Your task to perform on an android device: Add "amazon basics triple a" to the cart on ebay, then select checkout. Image 0: 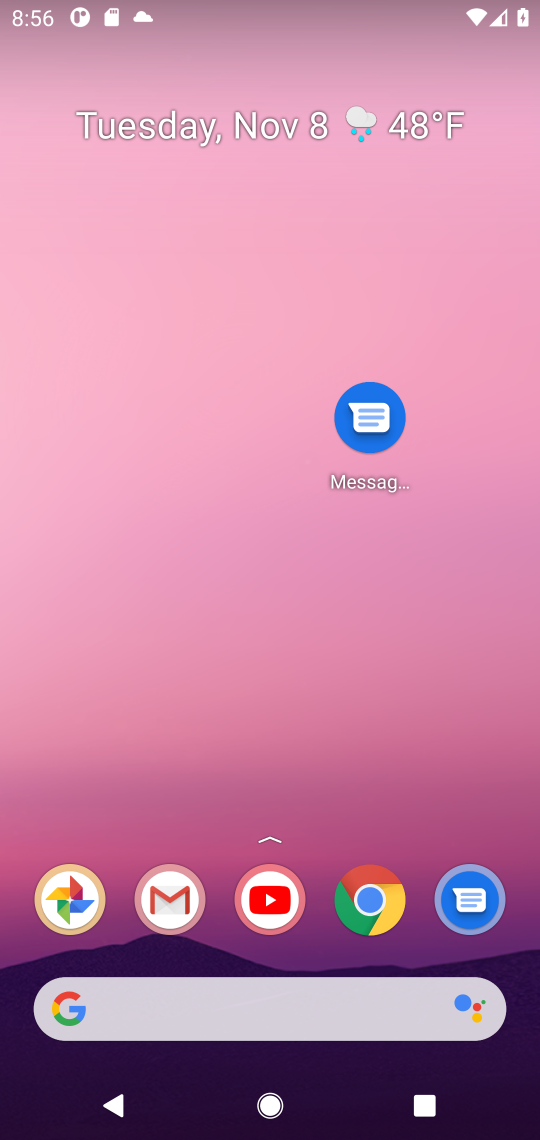
Step 0: drag from (296, 1024) to (373, 363)
Your task to perform on an android device: Add "amazon basics triple a" to the cart on ebay, then select checkout. Image 1: 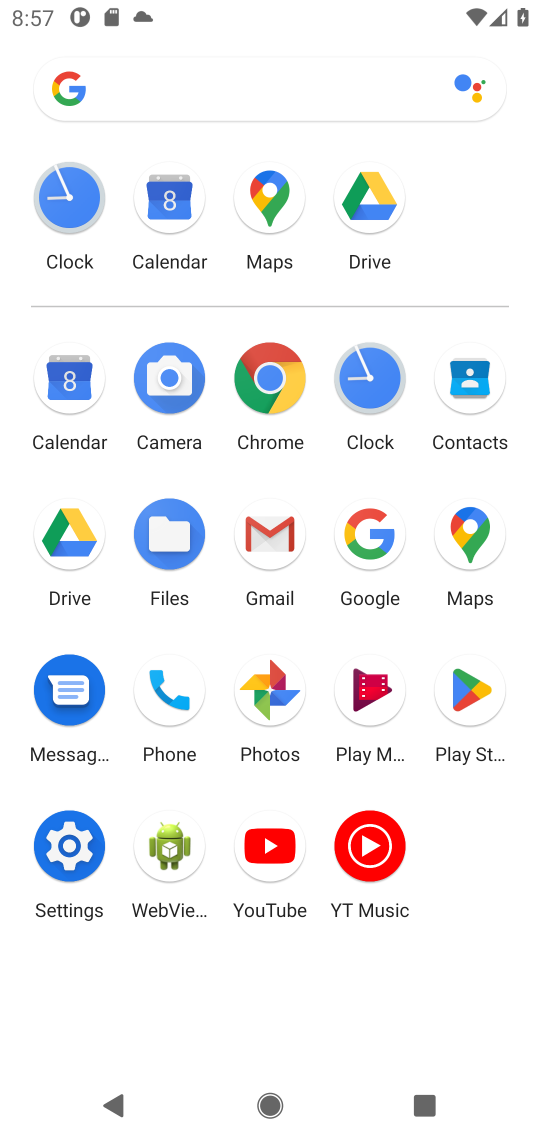
Step 1: click (380, 534)
Your task to perform on an android device: Add "amazon basics triple a" to the cart on ebay, then select checkout. Image 2: 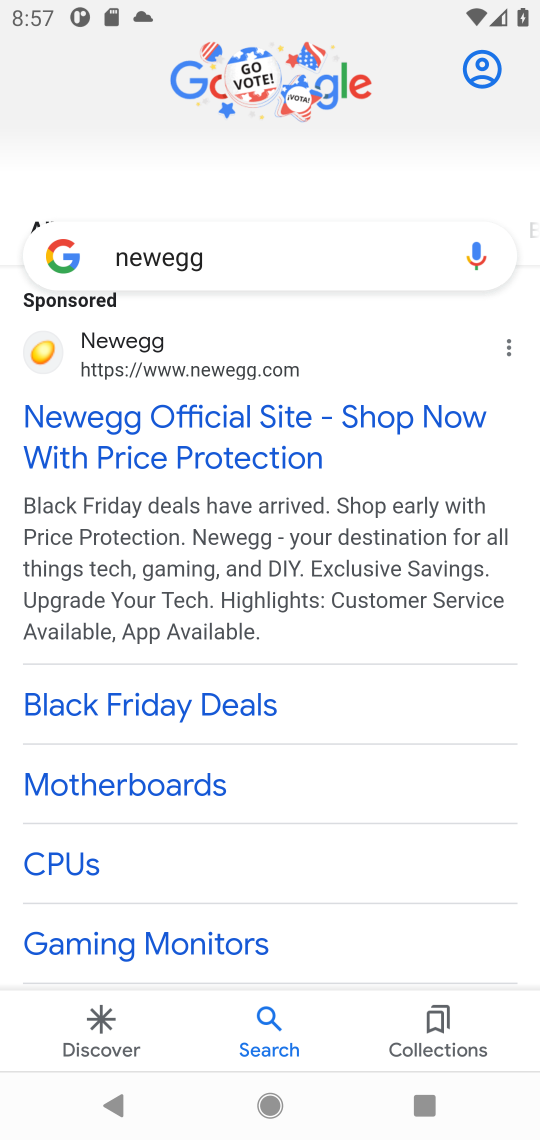
Step 2: click (259, 252)
Your task to perform on an android device: Add "amazon basics triple a" to the cart on ebay, then select checkout. Image 3: 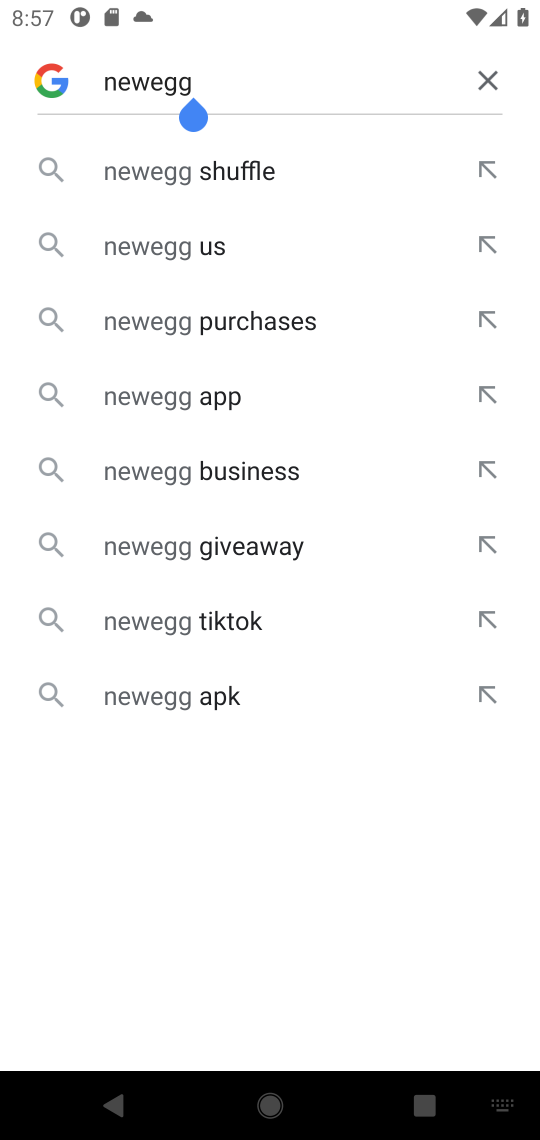
Step 3: click (515, 71)
Your task to perform on an android device: Add "amazon basics triple a" to the cart on ebay, then select checkout. Image 4: 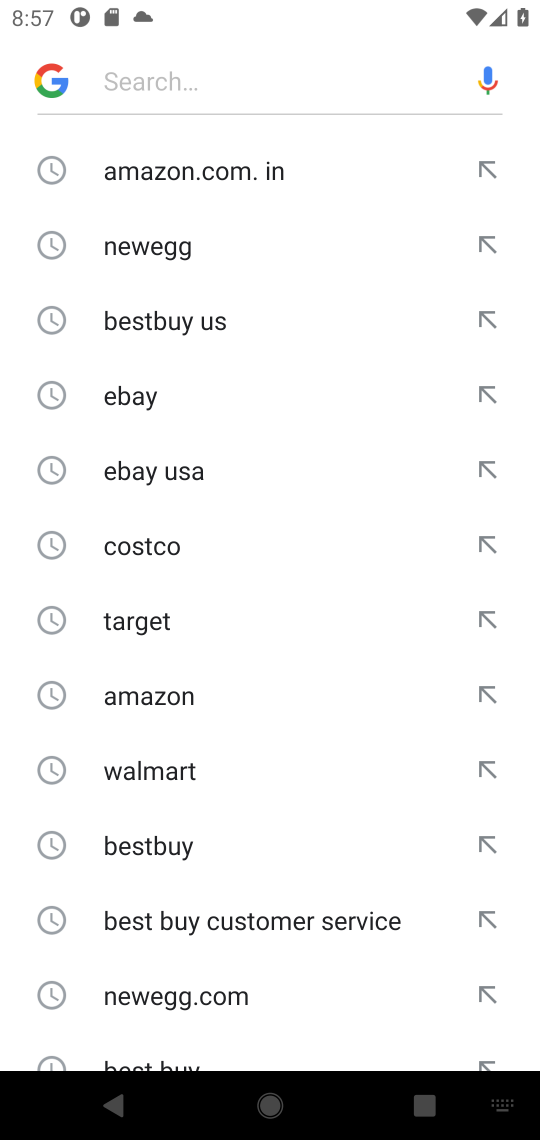
Step 4: click (147, 380)
Your task to perform on an android device: Add "amazon basics triple a" to the cart on ebay, then select checkout. Image 5: 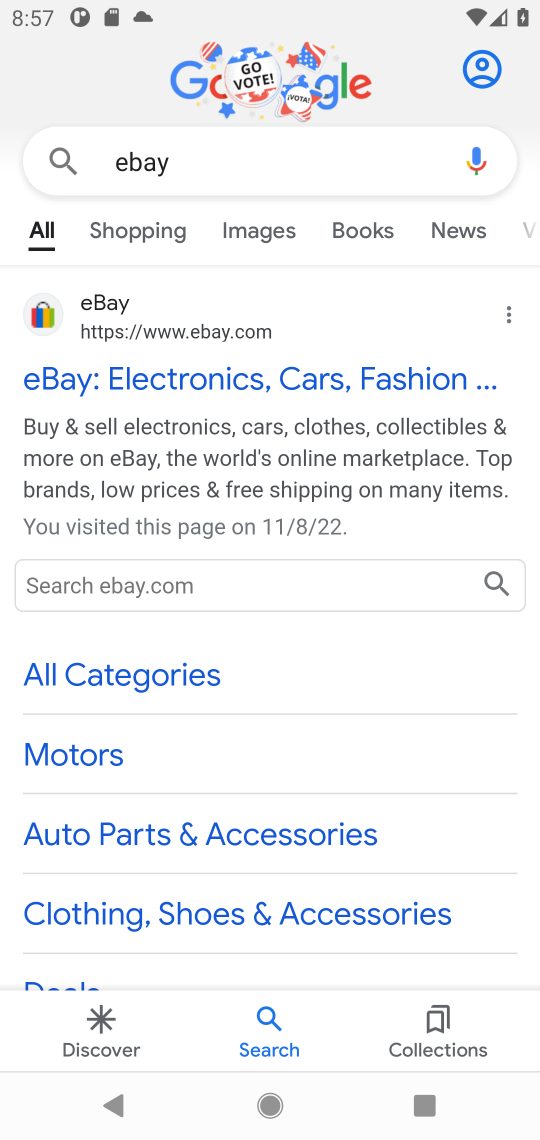
Step 5: click (34, 310)
Your task to perform on an android device: Add "amazon basics triple a" to the cart on ebay, then select checkout. Image 6: 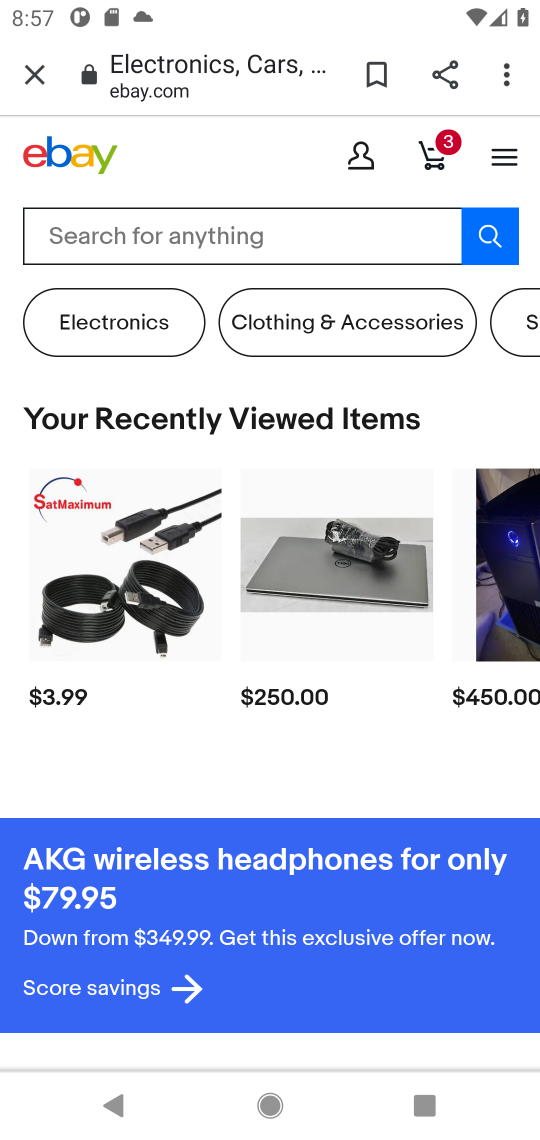
Step 6: click (251, 227)
Your task to perform on an android device: Add "amazon basics triple a" to the cart on ebay, then select checkout. Image 7: 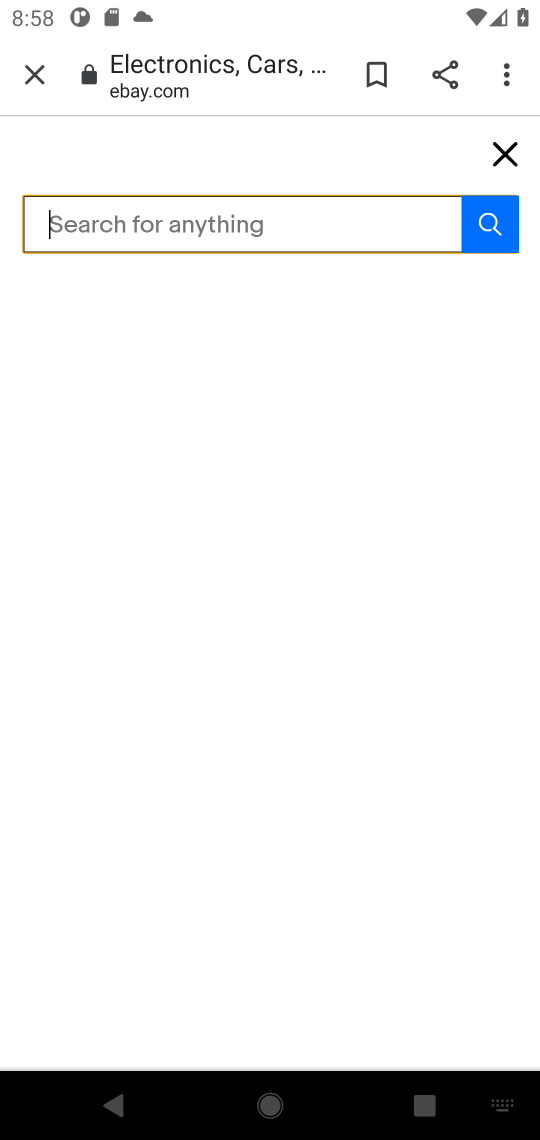
Step 7: type "triple "
Your task to perform on an android device: Add "amazon basics triple a" to the cart on ebay, then select checkout. Image 8: 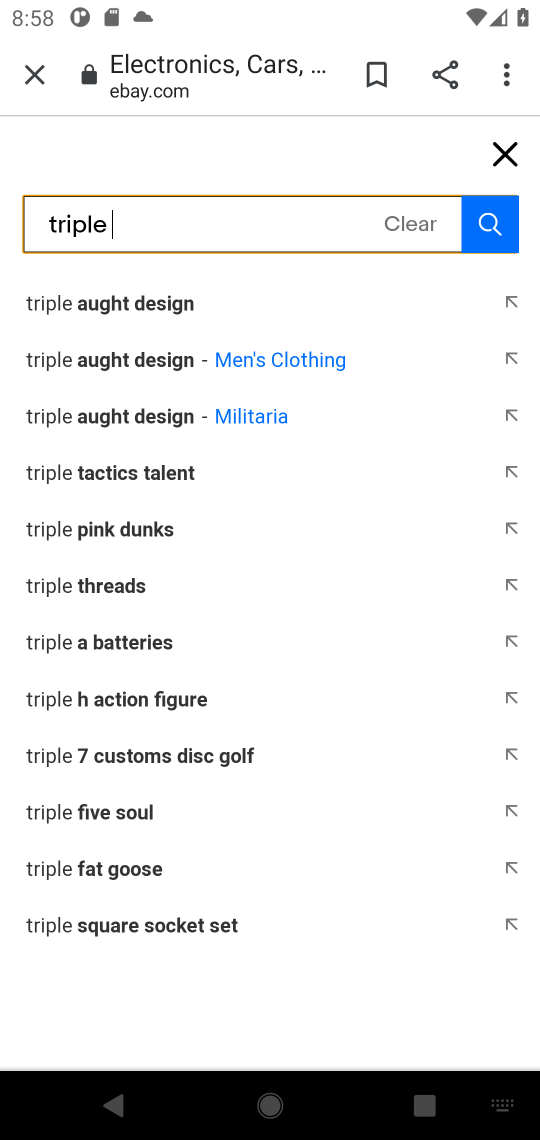
Step 8: click (153, 308)
Your task to perform on an android device: Add "amazon basics triple a" to the cart on ebay, then select checkout. Image 9: 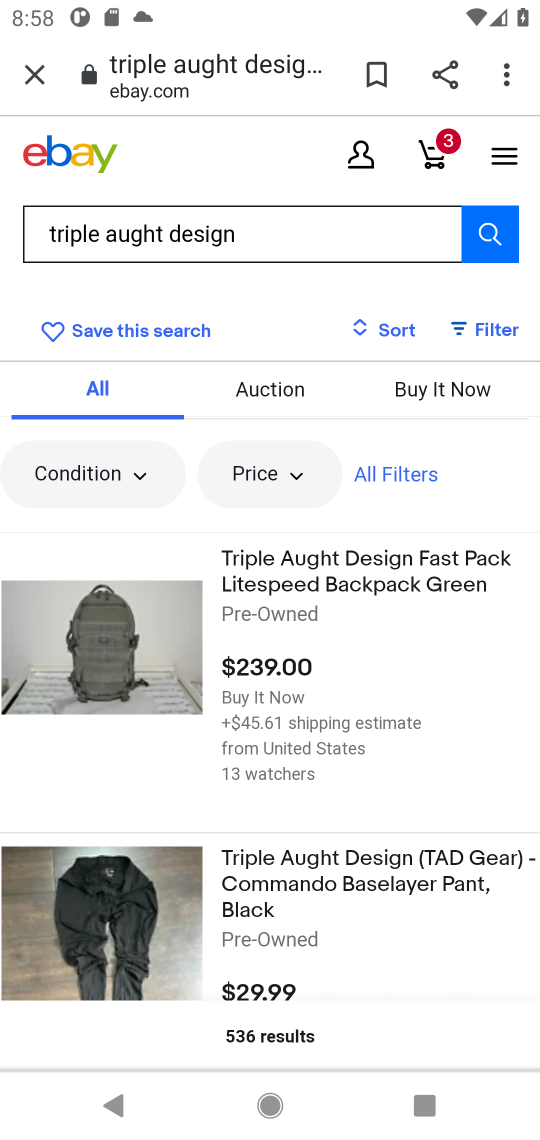
Step 9: drag from (376, 926) to (394, 481)
Your task to perform on an android device: Add "amazon basics triple a" to the cart on ebay, then select checkout. Image 10: 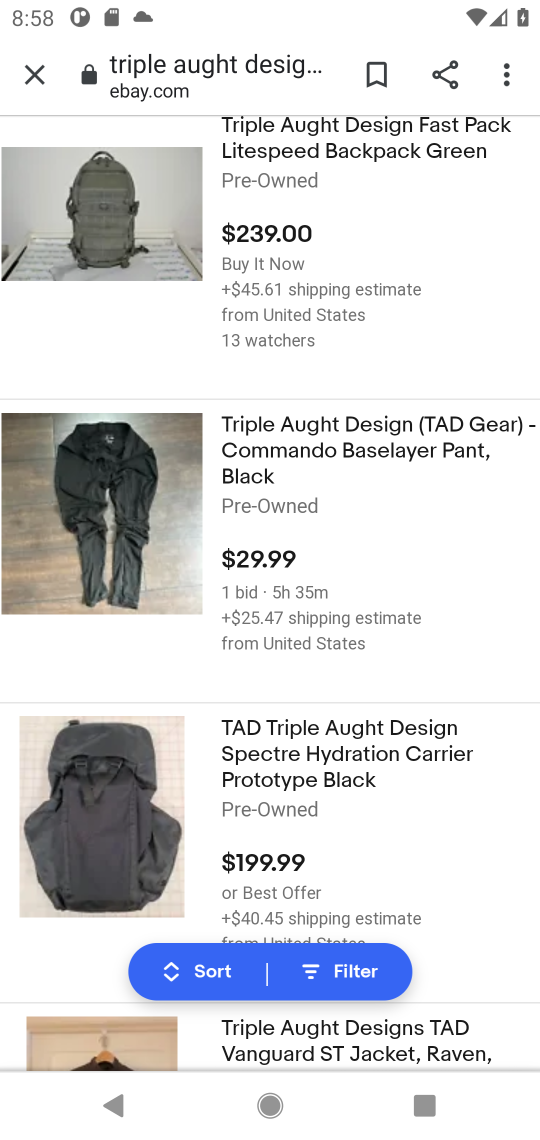
Step 10: press back button
Your task to perform on an android device: Add "amazon basics triple a" to the cart on ebay, then select checkout. Image 11: 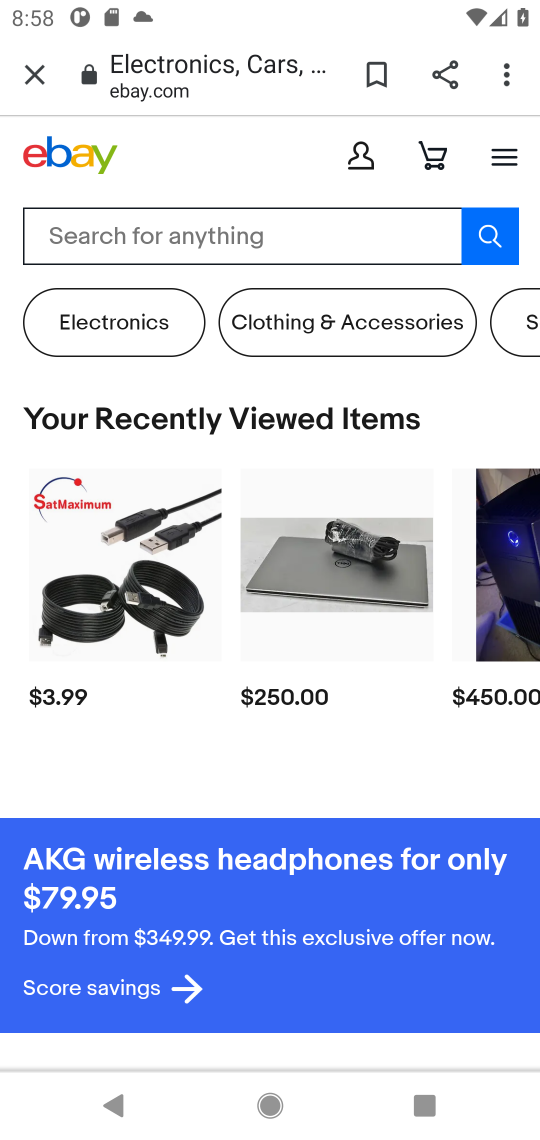
Step 11: click (258, 224)
Your task to perform on an android device: Add "amazon basics triple a" to the cart on ebay, then select checkout. Image 12: 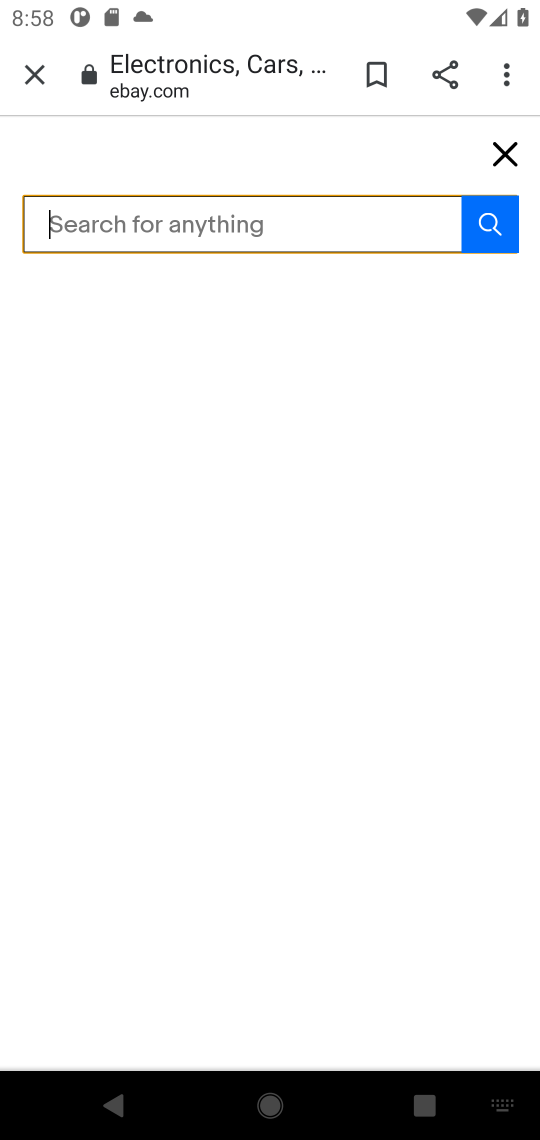
Step 12: type "triple "
Your task to perform on an android device: Add "amazon basics triple a" to the cart on ebay, then select checkout. Image 13: 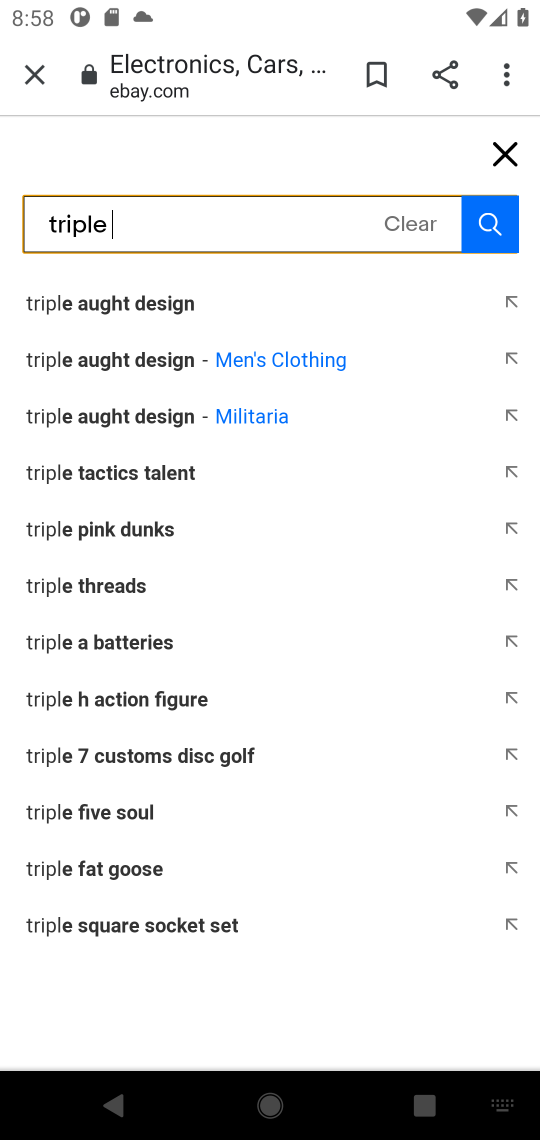
Step 13: click (142, 646)
Your task to perform on an android device: Add "amazon basics triple a" to the cart on ebay, then select checkout. Image 14: 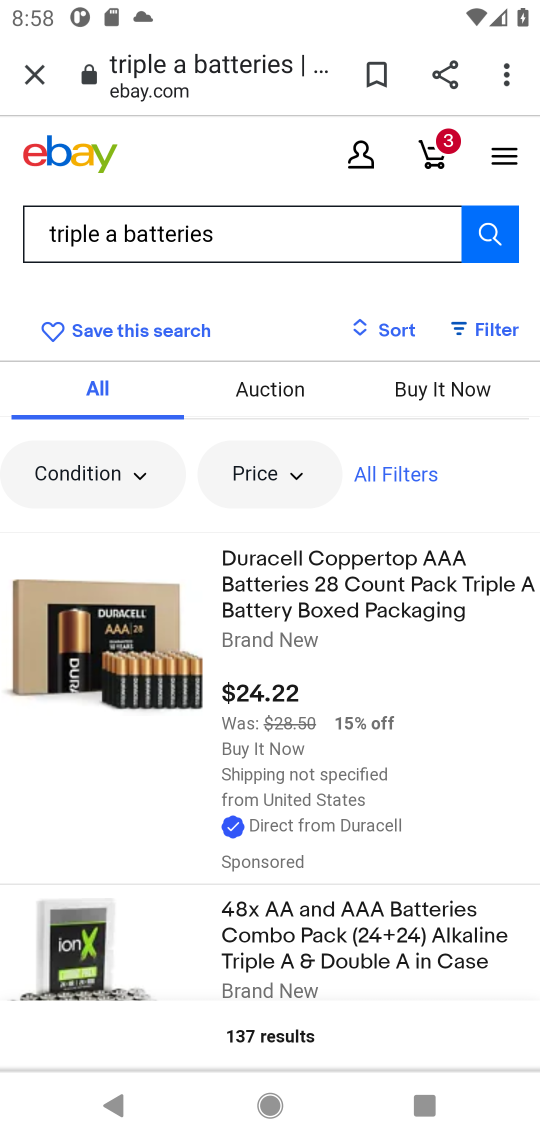
Step 14: click (273, 555)
Your task to perform on an android device: Add "amazon basics triple a" to the cart on ebay, then select checkout. Image 15: 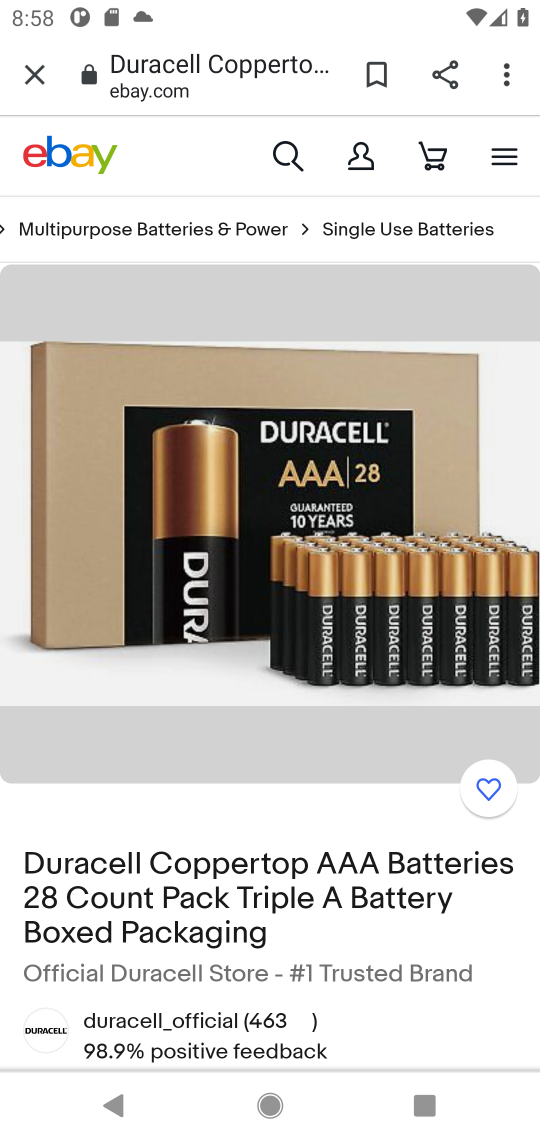
Step 15: drag from (240, 947) to (281, 395)
Your task to perform on an android device: Add "amazon basics triple a" to the cart on ebay, then select checkout. Image 16: 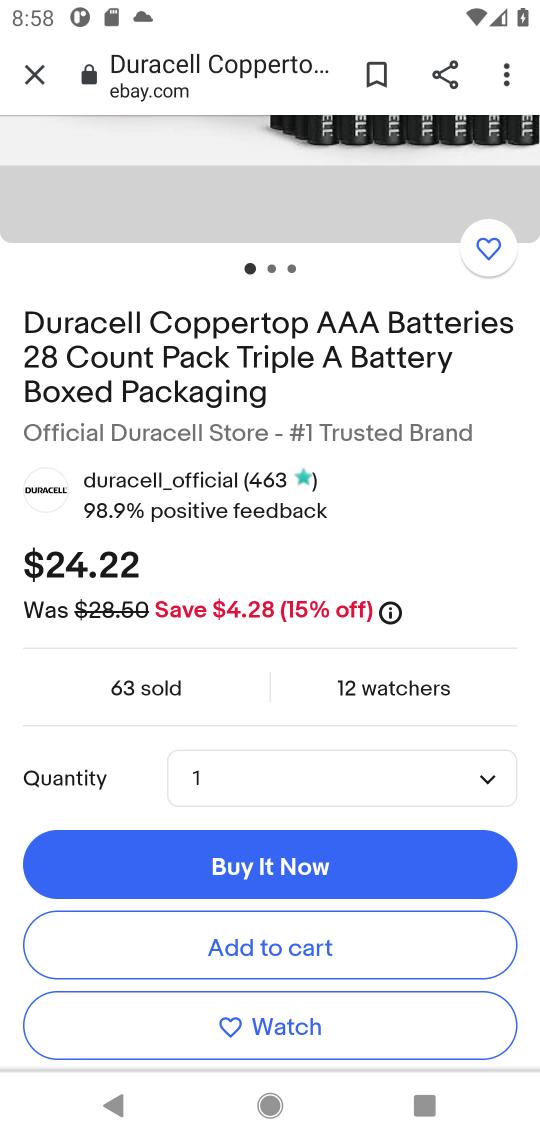
Step 16: drag from (196, 971) to (292, 370)
Your task to perform on an android device: Add "amazon basics triple a" to the cart on ebay, then select checkout. Image 17: 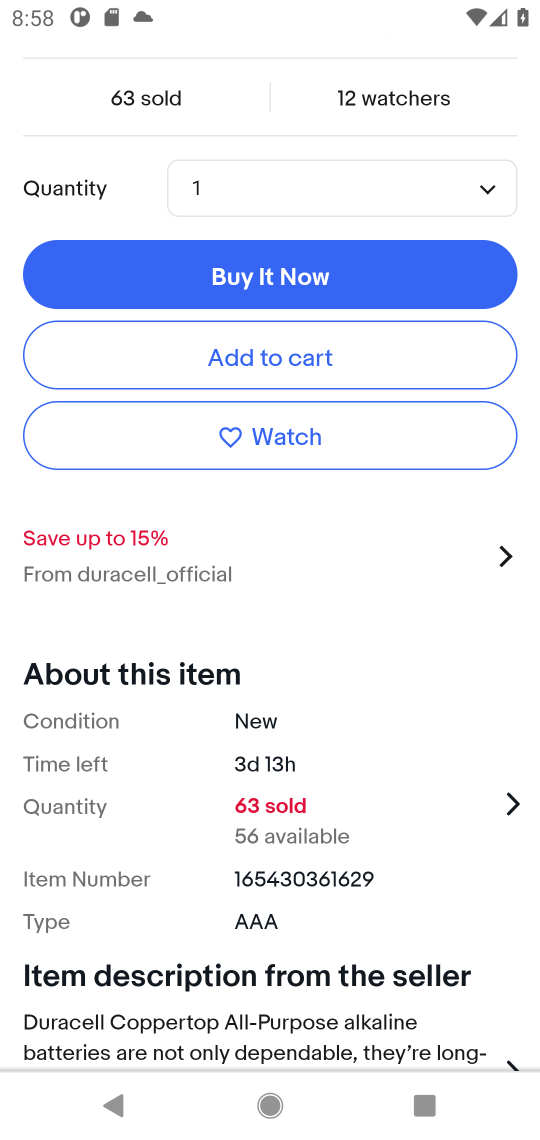
Step 17: click (279, 344)
Your task to perform on an android device: Add "amazon basics triple a" to the cart on ebay, then select checkout. Image 18: 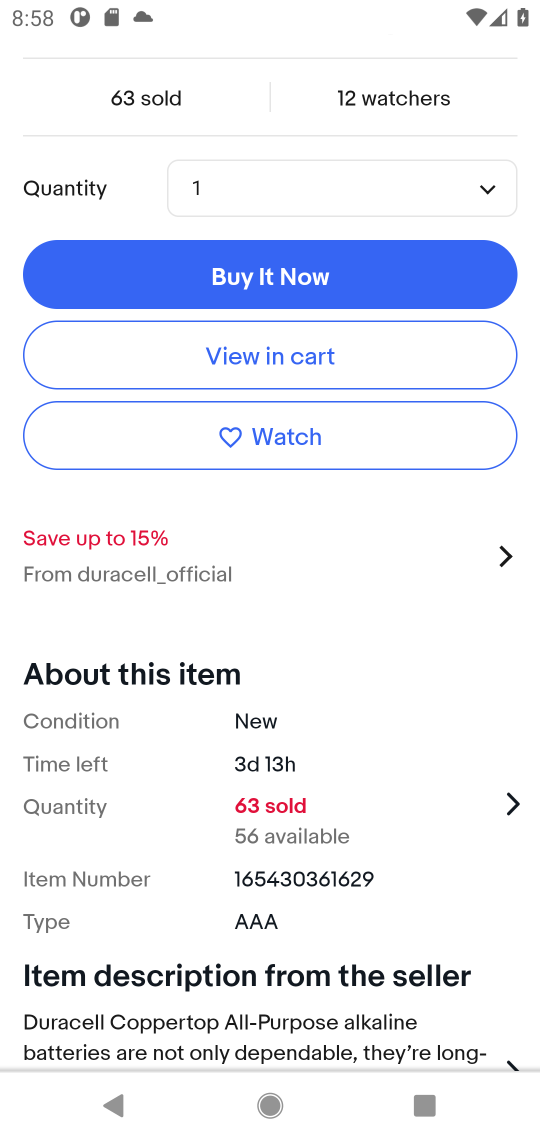
Step 18: click (293, 356)
Your task to perform on an android device: Add "amazon basics triple a" to the cart on ebay, then select checkout. Image 19: 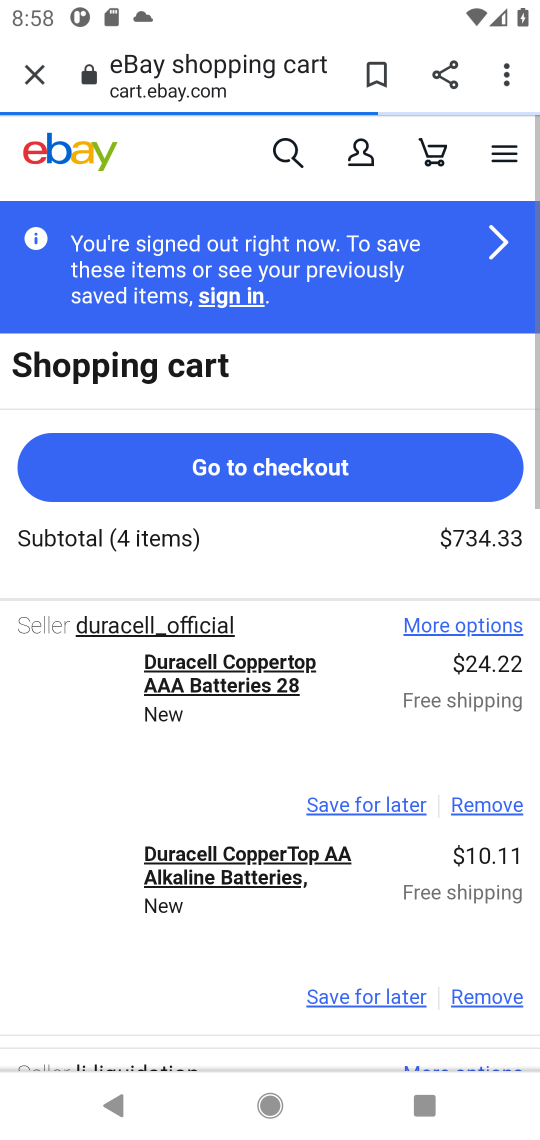
Step 19: task complete